Your task to perform on an android device: Open sound settings Image 0: 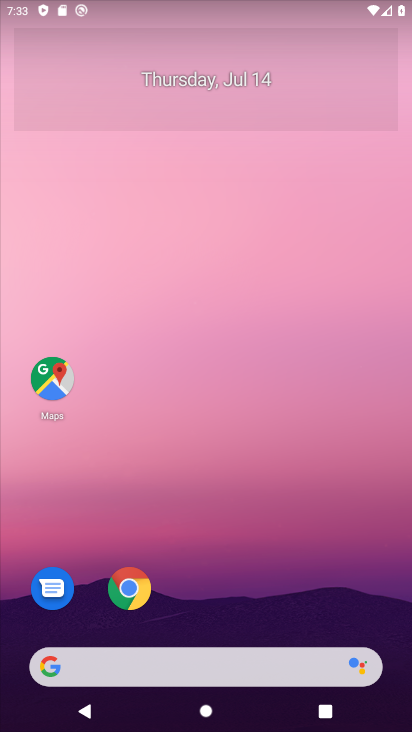
Step 0: drag from (16, 708) to (283, 82)
Your task to perform on an android device: Open sound settings Image 1: 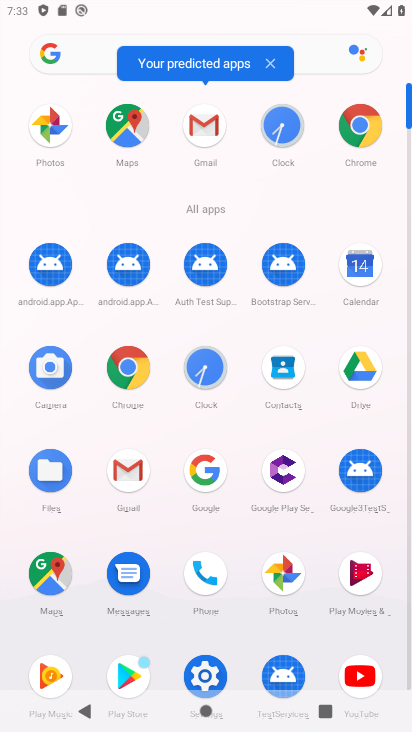
Step 1: click (189, 675)
Your task to perform on an android device: Open sound settings Image 2: 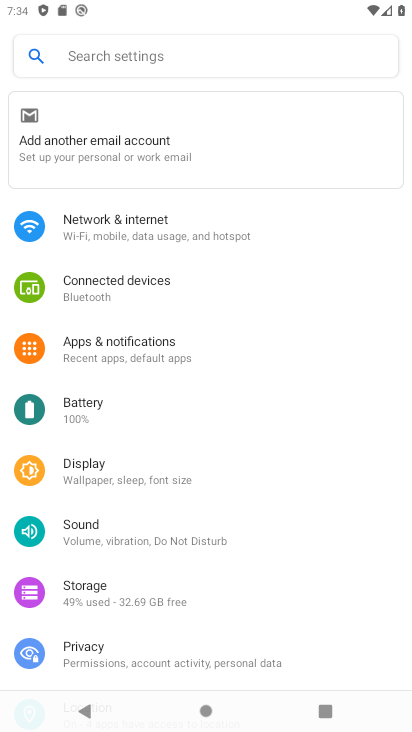
Step 2: click (90, 544)
Your task to perform on an android device: Open sound settings Image 3: 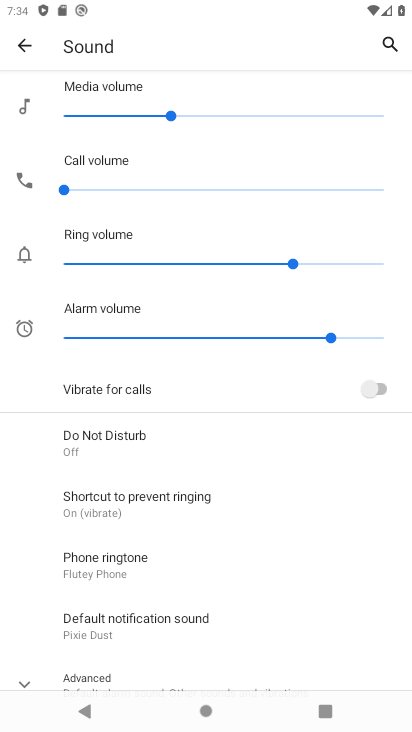
Step 3: task complete